Your task to perform on an android device: stop showing notifications on the lock screen Image 0: 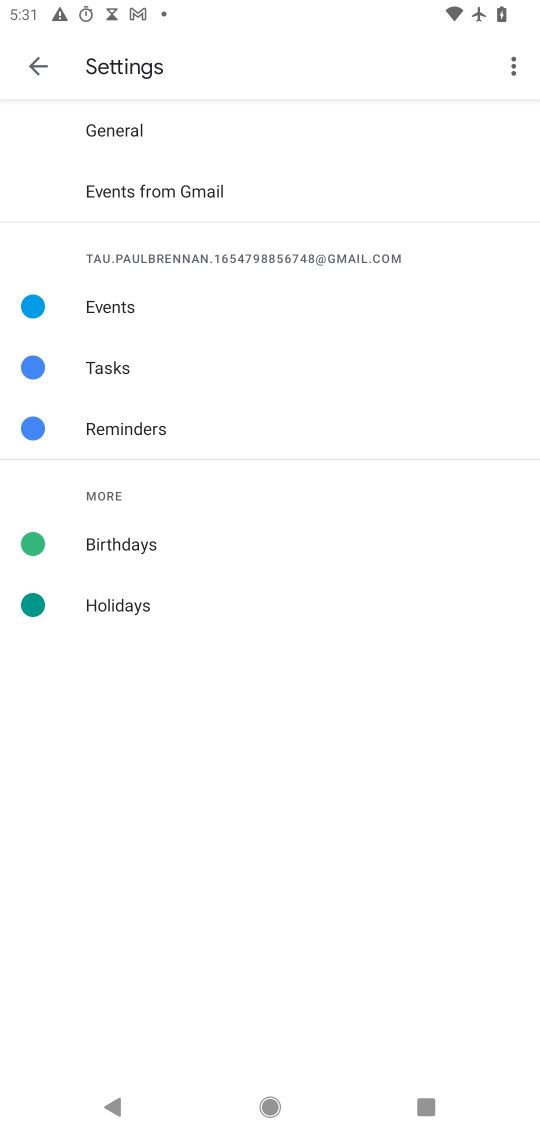
Step 0: press home button
Your task to perform on an android device: stop showing notifications on the lock screen Image 1: 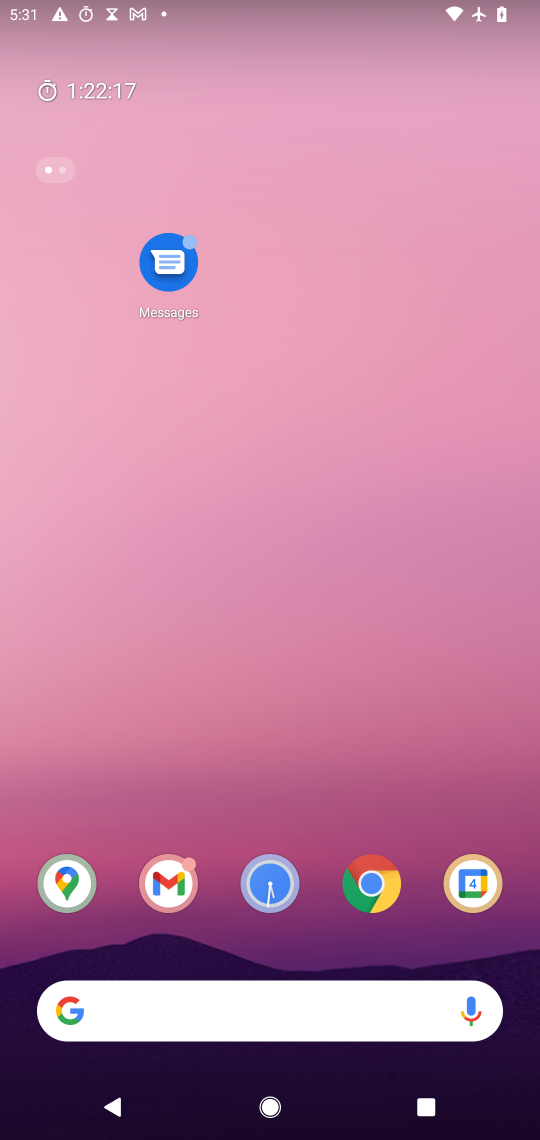
Step 1: drag from (299, 731) to (297, 262)
Your task to perform on an android device: stop showing notifications on the lock screen Image 2: 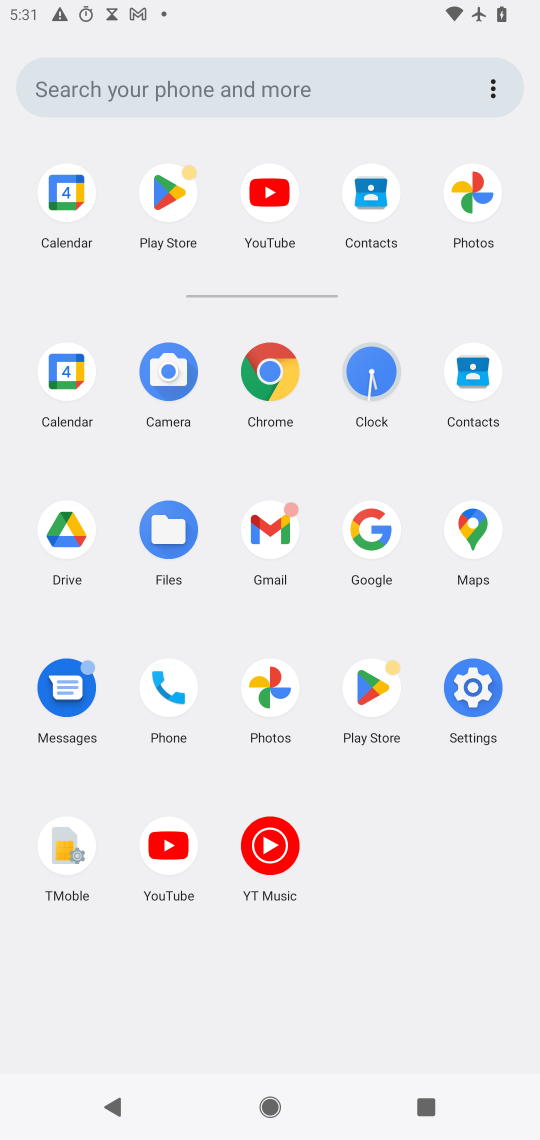
Step 2: click (486, 681)
Your task to perform on an android device: stop showing notifications on the lock screen Image 3: 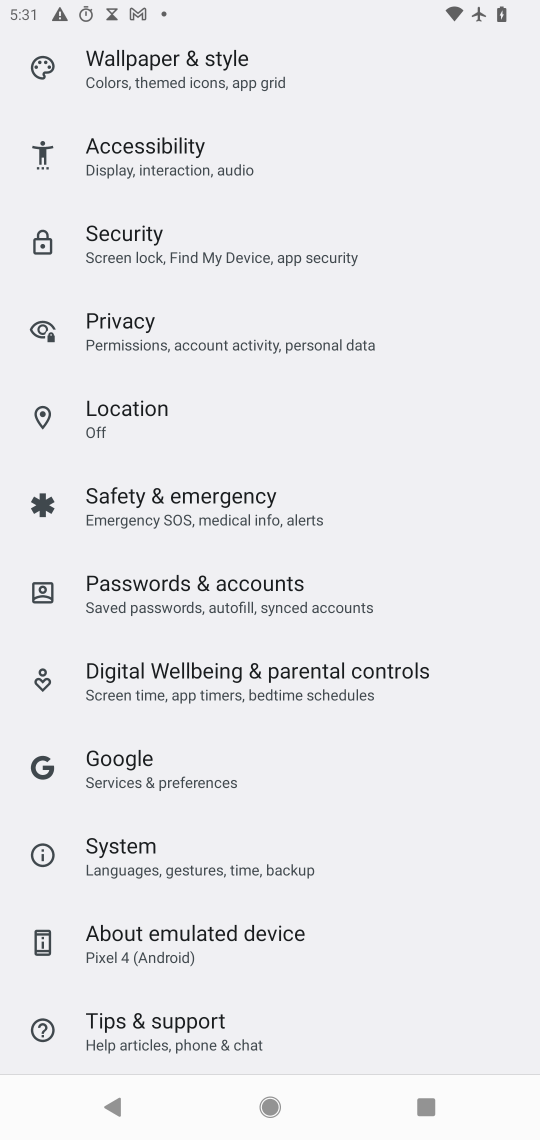
Step 3: drag from (238, 964) to (213, 416)
Your task to perform on an android device: stop showing notifications on the lock screen Image 4: 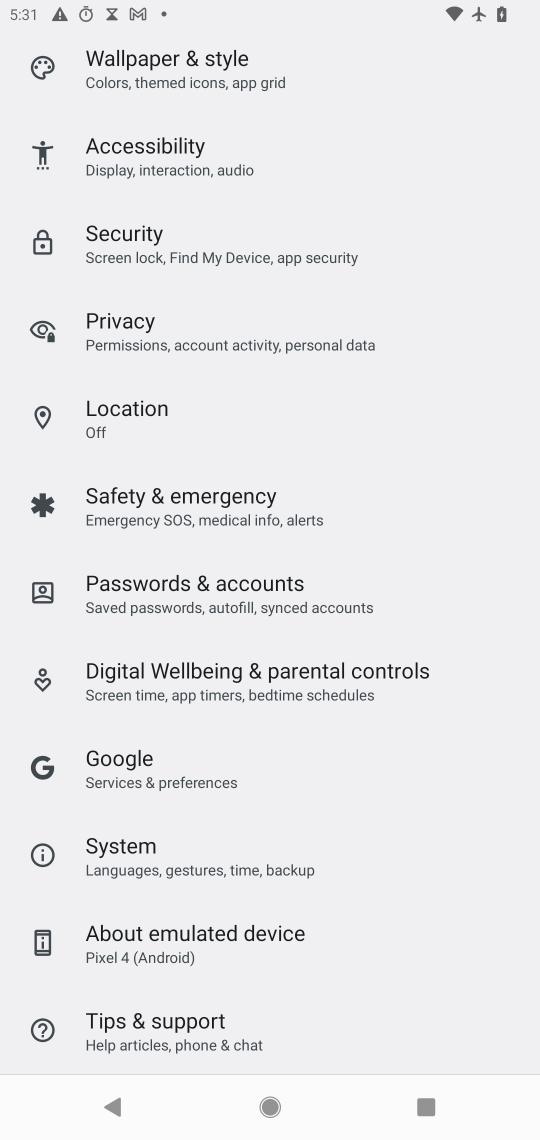
Step 4: drag from (258, 145) to (303, 780)
Your task to perform on an android device: stop showing notifications on the lock screen Image 5: 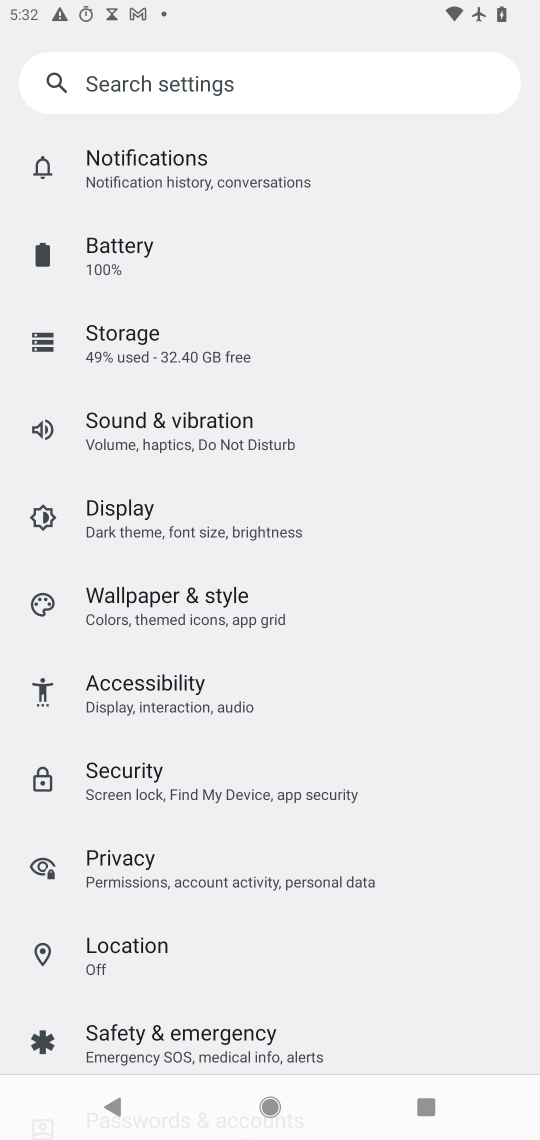
Step 5: click (136, 174)
Your task to perform on an android device: stop showing notifications on the lock screen Image 6: 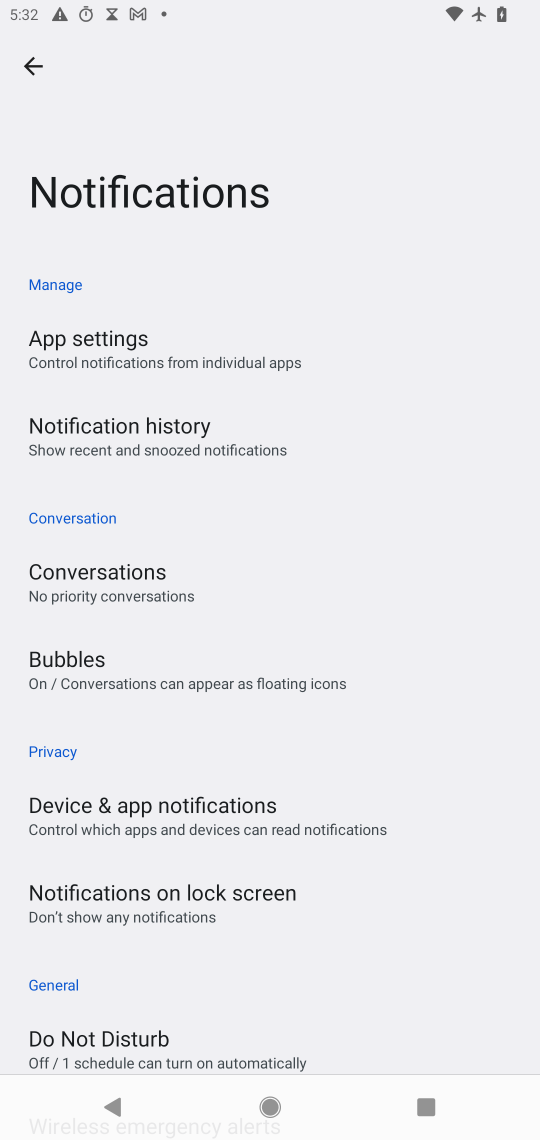
Step 6: click (148, 900)
Your task to perform on an android device: stop showing notifications on the lock screen Image 7: 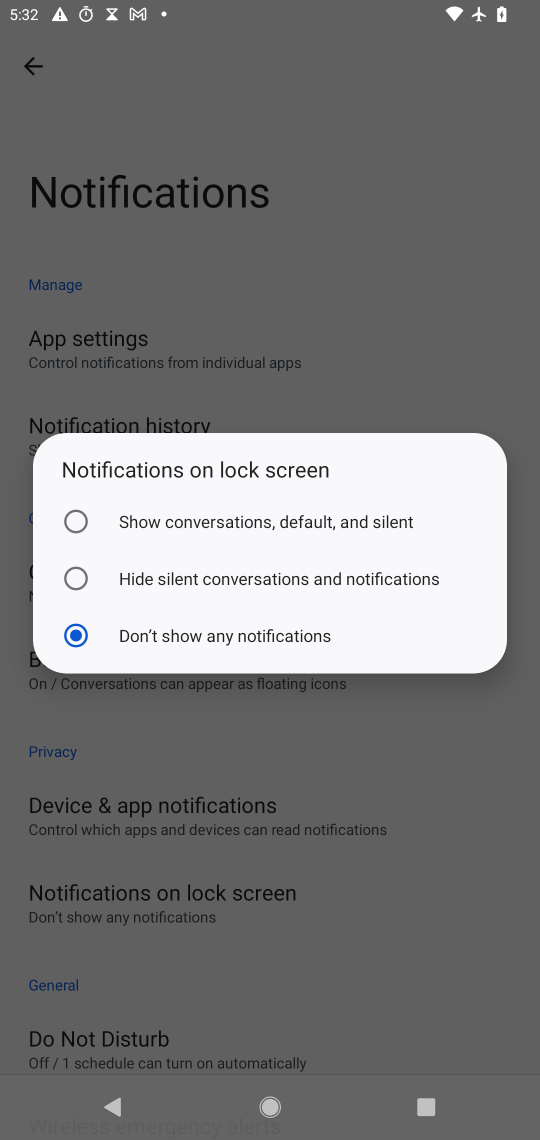
Step 7: task complete